Your task to perform on an android device: Open eBay Image 0: 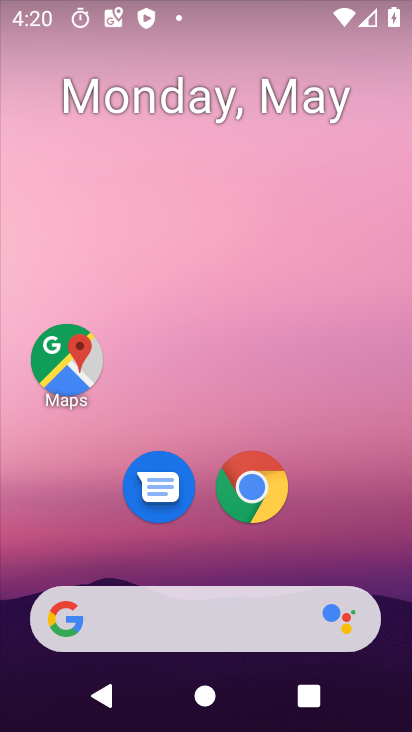
Step 0: click (271, 495)
Your task to perform on an android device: Open eBay Image 1: 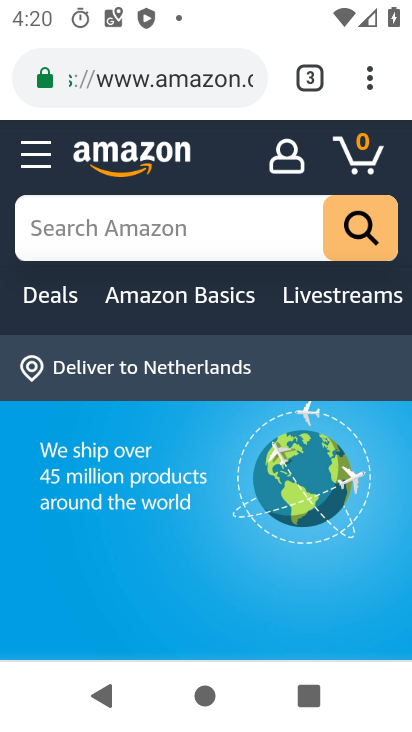
Step 1: click (104, 81)
Your task to perform on an android device: Open eBay Image 2: 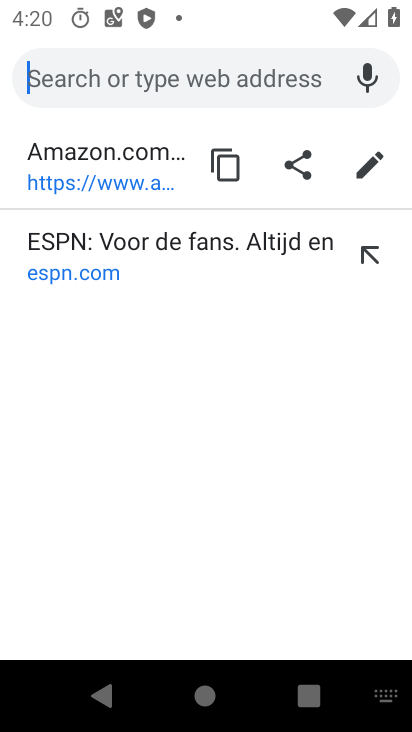
Step 2: type "ebay"
Your task to perform on an android device: Open eBay Image 3: 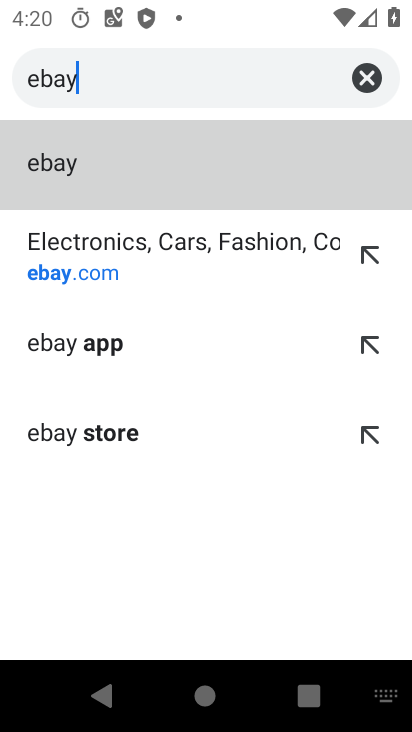
Step 3: click (53, 172)
Your task to perform on an android device: Open eBay Image 4: 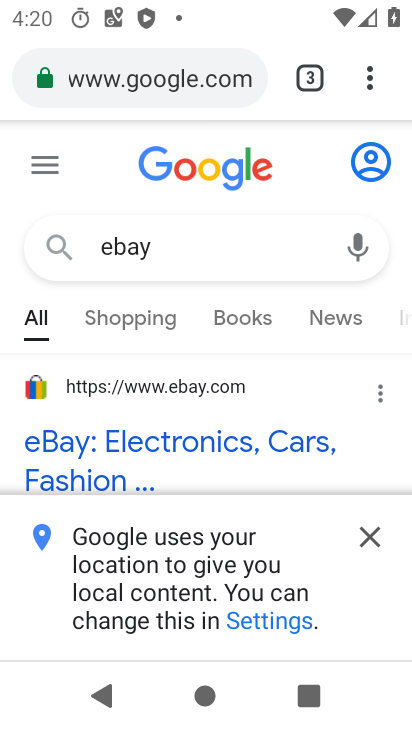
Step 4: click (83, 394)
Your task to perform on an android device: Open eBay Image 5: 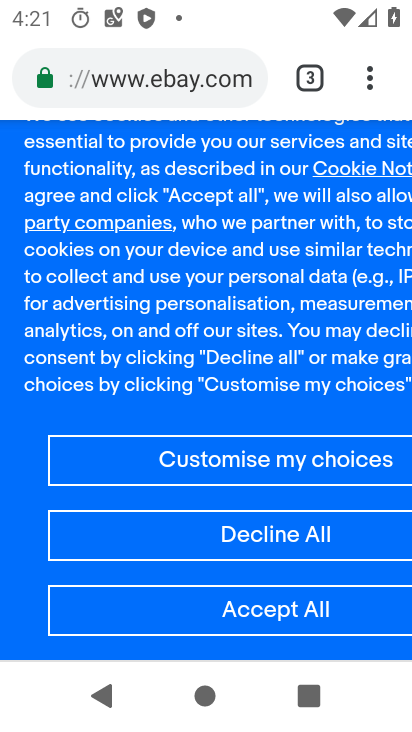
Step 5: task complete